Your task to perform on an android device: Search for Mexican restaurants on Maps Image 0: 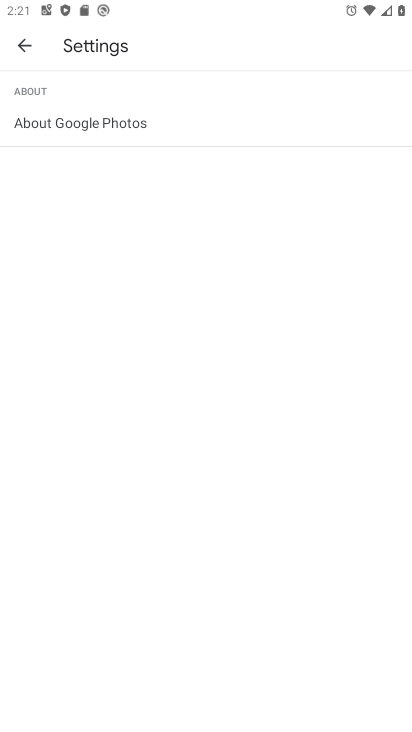
Step 0: click (15, 40)
Your task to perform on an android device: Search for Mexican restaurants on Maps Image 1: 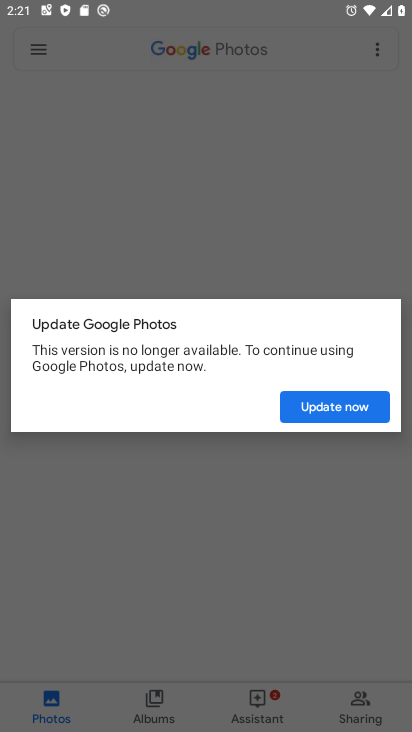
Step 1: press home button
Your task to perform on an android device: Search for Mexican restaurants on Maps Image 2: 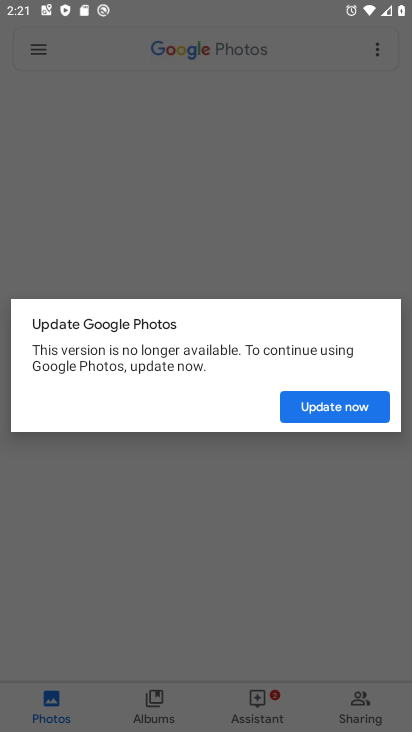
Step 2: press home button
Your task to perform on an android device: Search for Mexican restaurants on Maps Image 3: 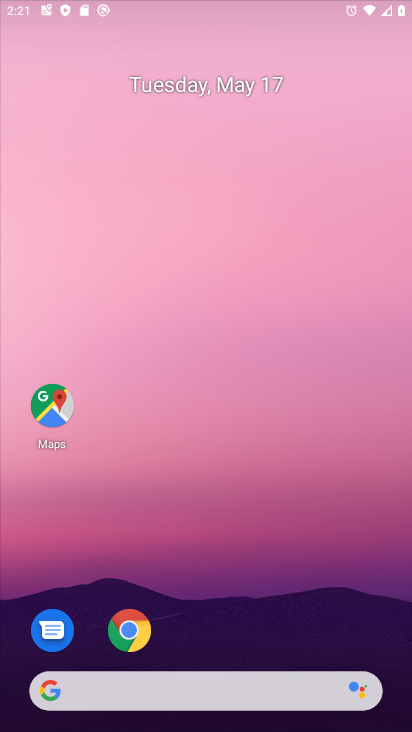
Step 3: press home button
Your task to perform on an android device: Search for Mexican restaurants on Maps Image 4: 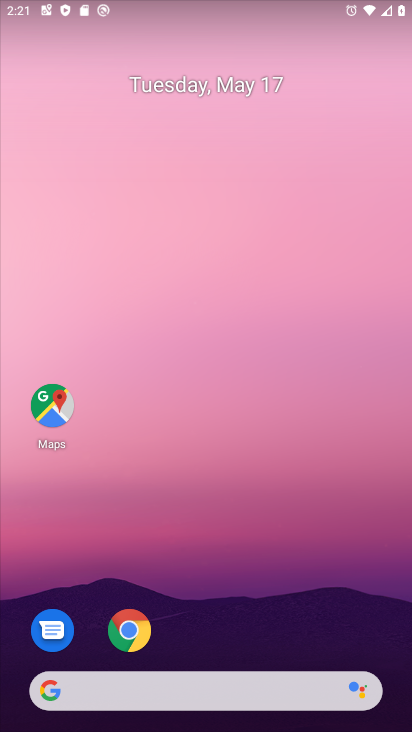
Step 4: drag from (349, 639) to (89, 49)
Your task to perform on an android device: Search for Mexican restaurants on Maps Image 5: 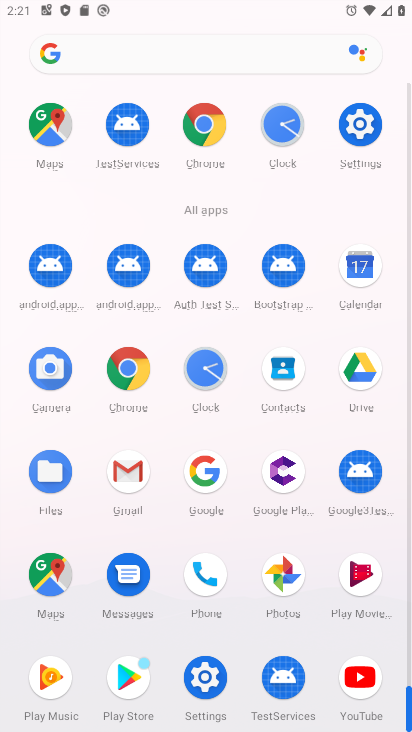
Step 5: click (62, 123)
Your task to perform on an android device: Search for Mexican restaurants on Maps Image 6: 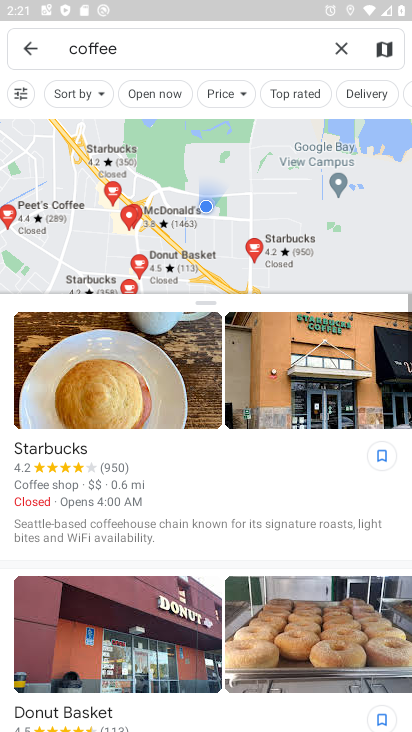
Step 6: click (130, 49)
Your task to perform on an android device: Search for Mexican restaurants on Maps Image 7: 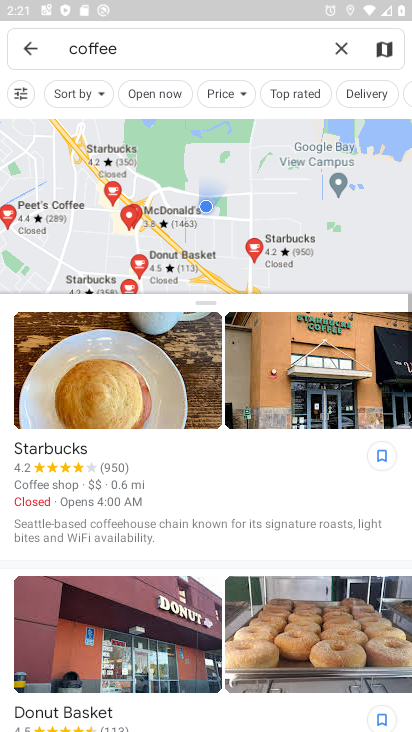
Step 7: click (337, 44)
Your task to perform on an android device: Search for Mexican restaurants on Maps Image 8: 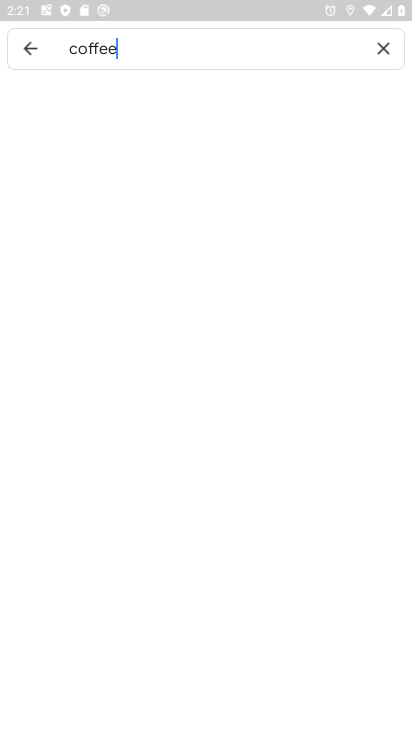
Step 8: click (337, 44)
Your task to perform on an android device: Search for Mexican restaurants on Maps Image 9: 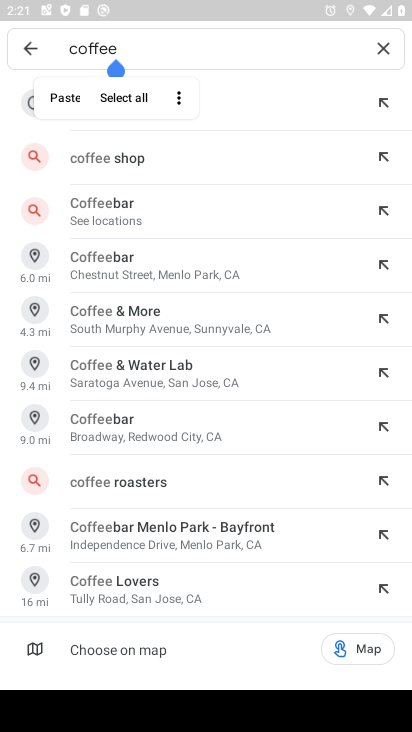
Step 9: click (375, 35)
Your task to perform on an android device: Search for Mexican restaurants on Maps Image 10: 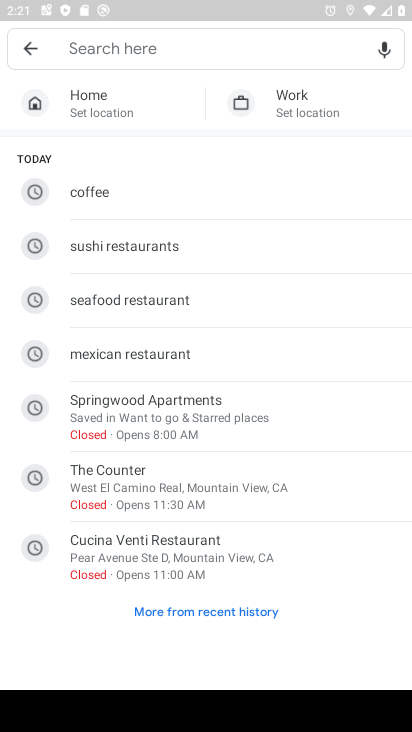
Step 10: click (128, 359)
Your task to perform on an android device: Search for Mexican restaurants on Maps Image 11: 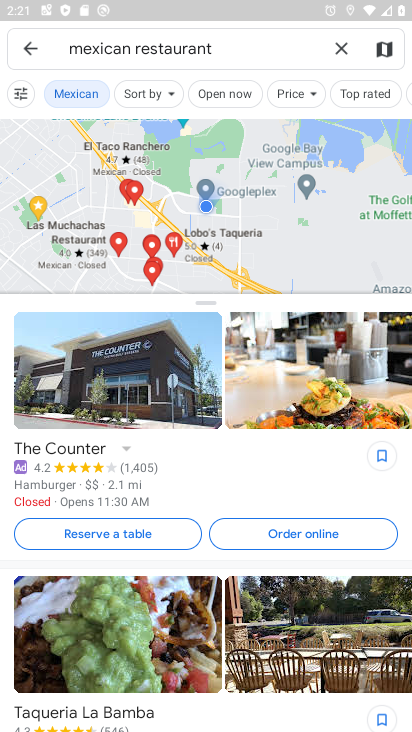
Step 11: task complete